Your task to perform on an android device: turn off picture-in-picture Image 0: 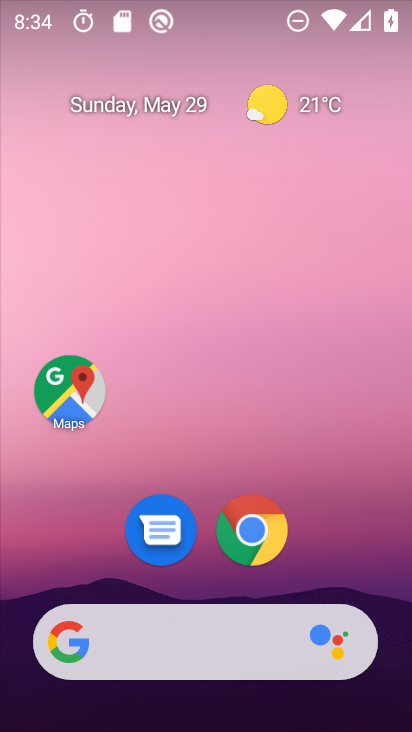
Step 0: drag from (250, 686) to (253, 240)
Your task to perform on an android device: turn off picture-in-picture Image 1: 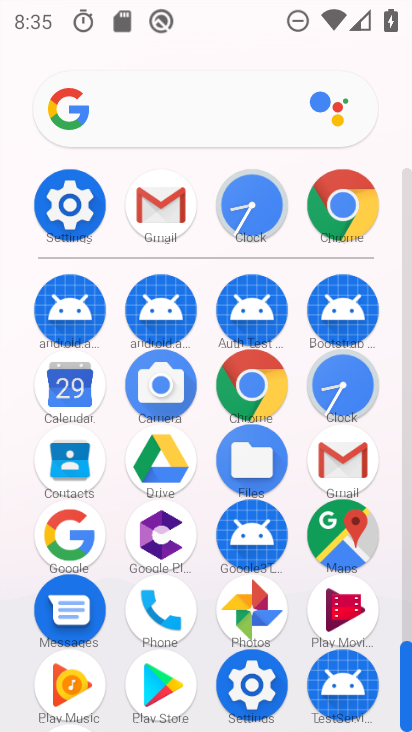
Step 1: click (92, 207)
Your task to perform on an android device: turn off picture-in-picture Image 2: 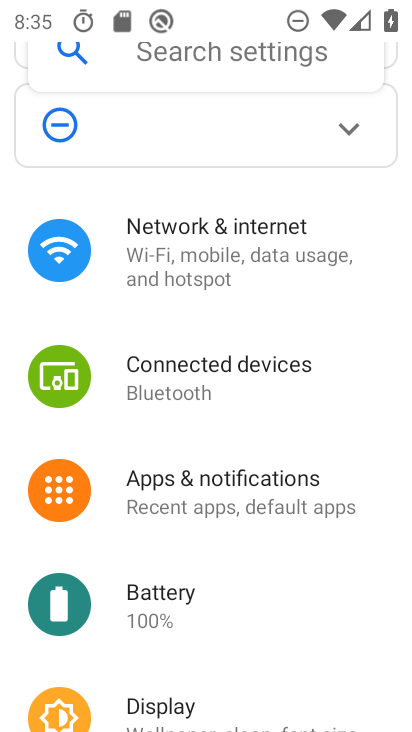
Step 2: click (167, 58)
Your task to perform on an android device: turn off picture-in-picture Image 3: 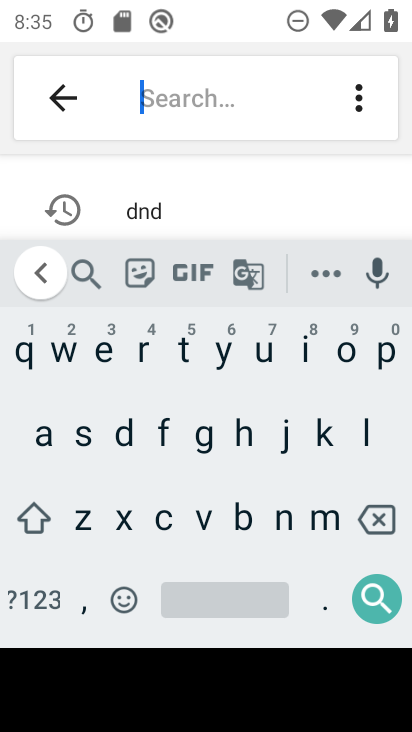
Step 3: click (383, 359)
Your task to perform on an android device: turn off picture-in-picture Image 4: 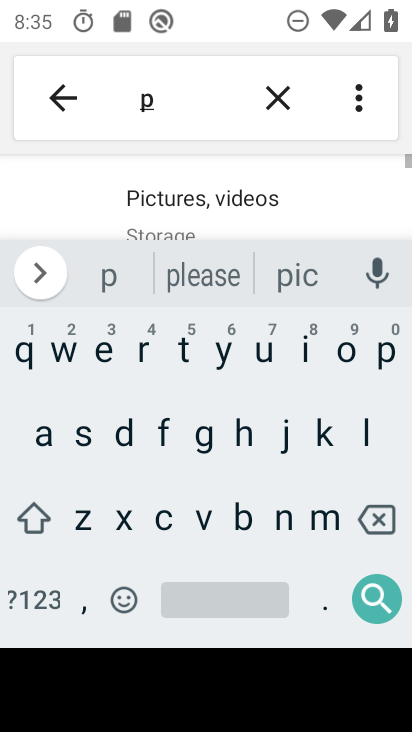
Step 4: click (299, 355)
Your task to perform on an android device: turn off picture-in-picture Image 5: 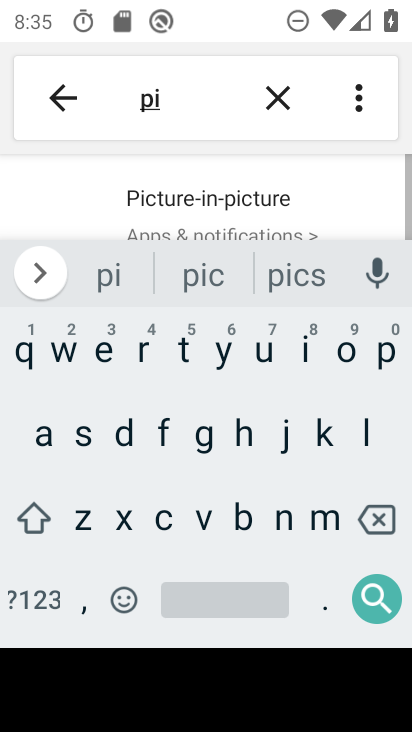
Step 5: click (172, 203)
Your task to perform on an android device: turn off picture-in-picture Image 6: 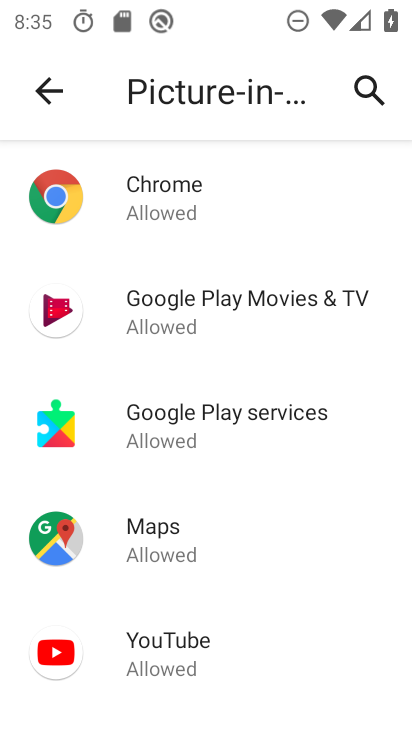
Step 6: task complete